Your task to perform on an android device: change keyboard looks Image 0: 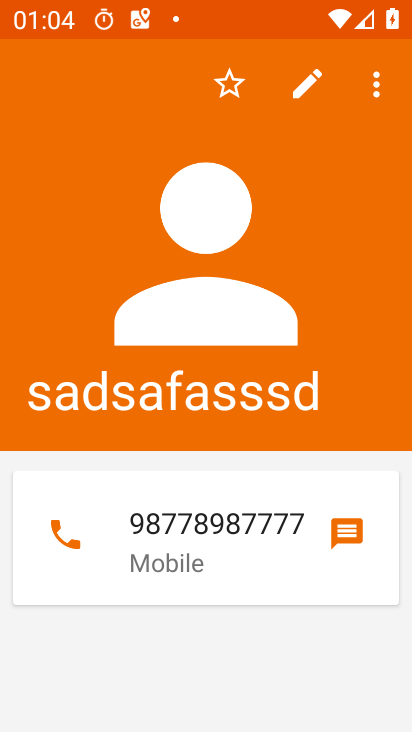
Step 0: press home button
Your task to perform on an android device: change keyboard looks Image 1: 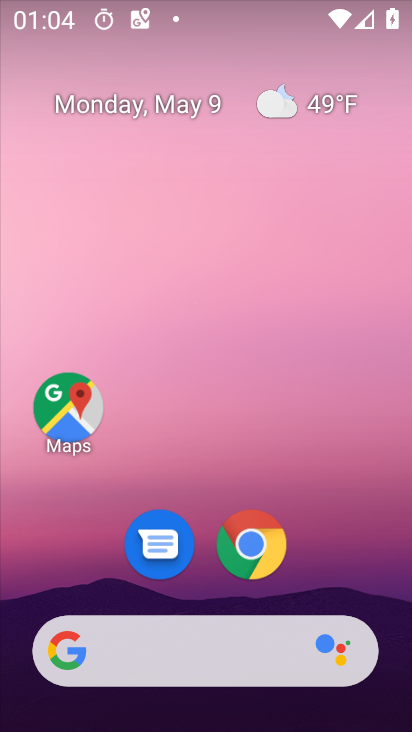
Step 1: drag from (303, 627) to (228, 0)
Your task to perform on an android device: change keyboard looks Image 2: 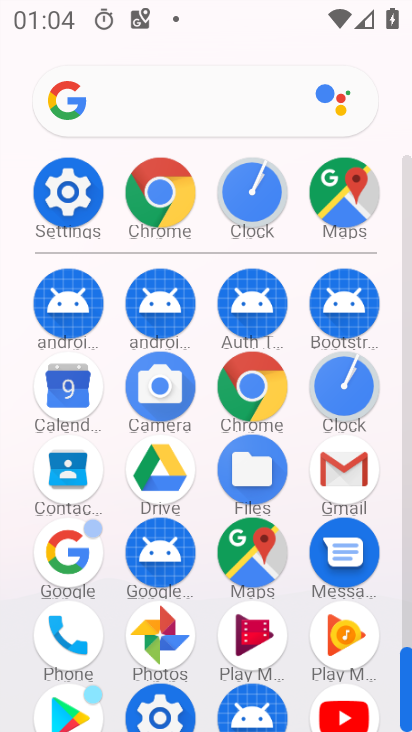
Step 2: click (70, 215)
Your task to perform on an android device: change keyboard looks Image 3: 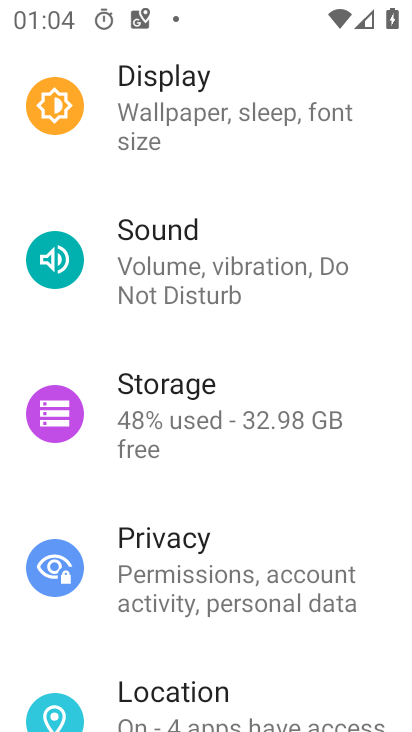
Step 3: drag from (283, 321) to (410, 624)
Your task to perform on an android device: change keyboard looks Image 4: 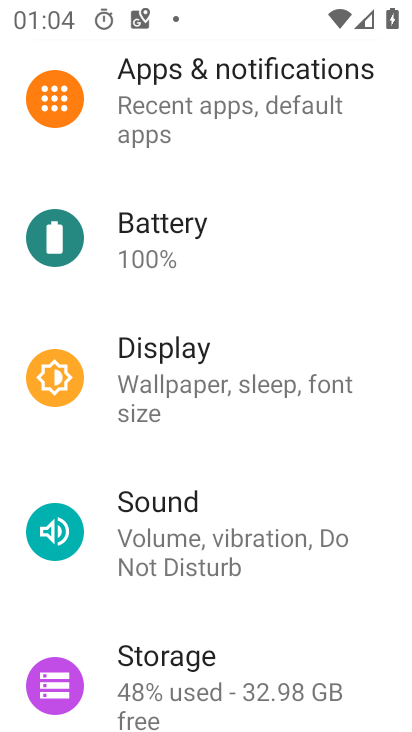
Step 4: drag from (310, 323) to (347, 597)
Your task to perform on an android device: change keyboard looks Image 5: 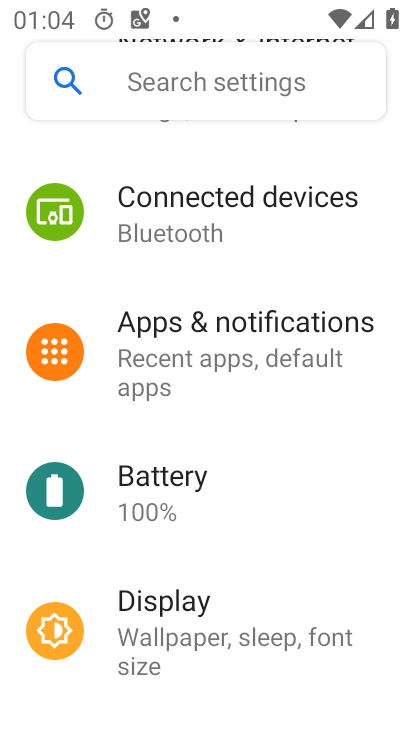
Step 5: drag from (315, 657) to (336, 1)
Your task to perform on an android device: change keyboard looks Image 6: 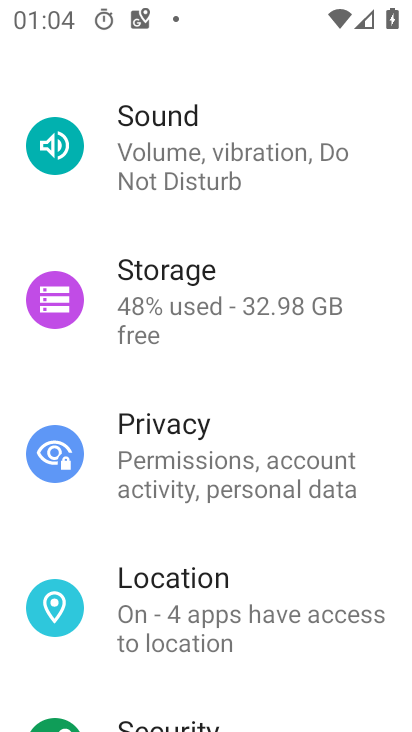
Step 6: drag from (314, 613) to (354, 2)
Your task to perform on an android device: change keyboard looks Image 7: 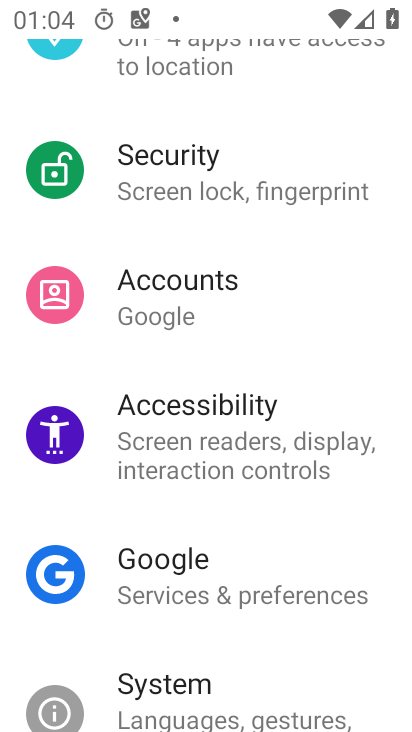
Step 7: drag from (269, 658) to (284, 173)
Your task to perform on an android device: change keyboard looks Image 8: 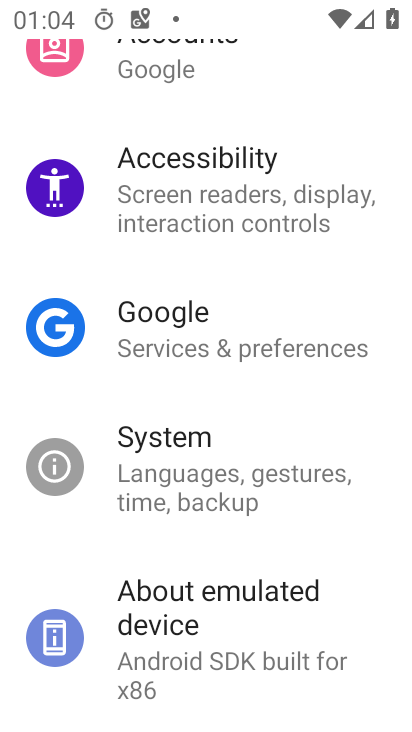
Step 8: click (278, 512)
Your task to perform on an android device: change keyboard looks Image 9: 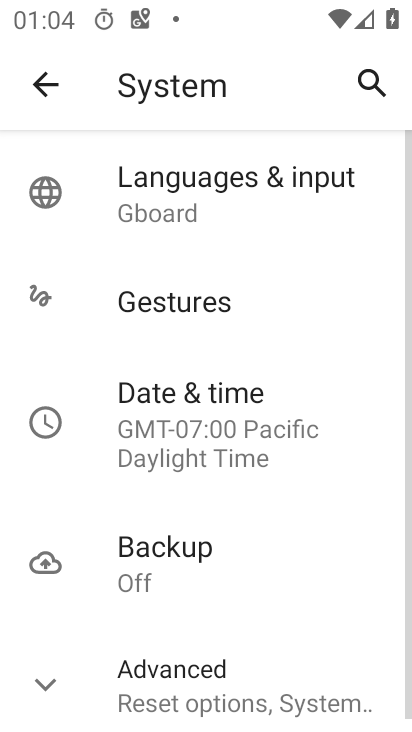
Step 9: click (235, 194)
Your task to perform on an android device: change keyboard looks Image 10: 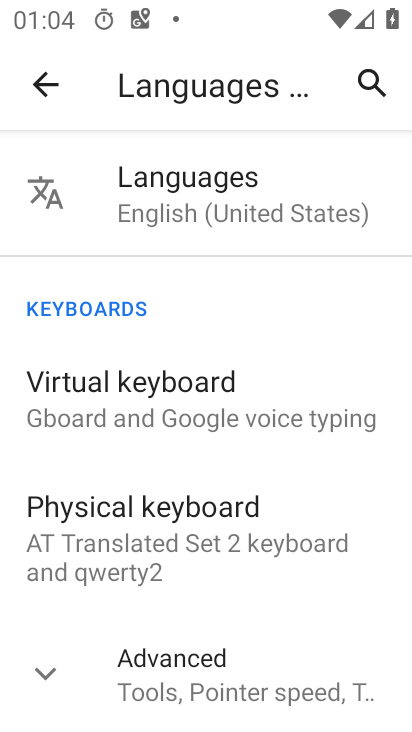
Step 10: click (259, 409)
Your task to perform on an android device: change keyboard looks Image 11: 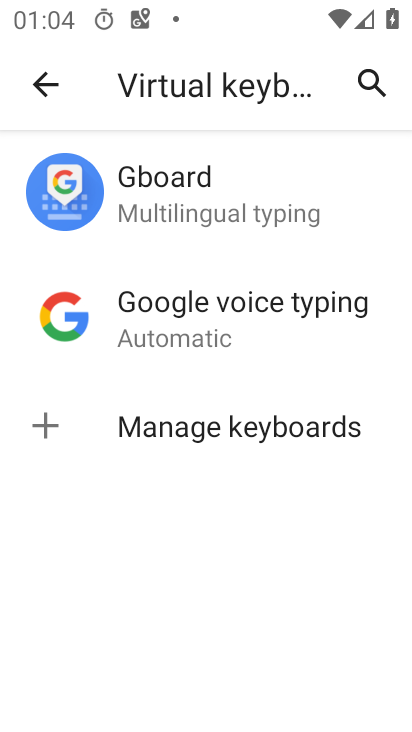
Step 11: click (249, 224)
Your task to perform on an android device: change keyboard looks Image 12: 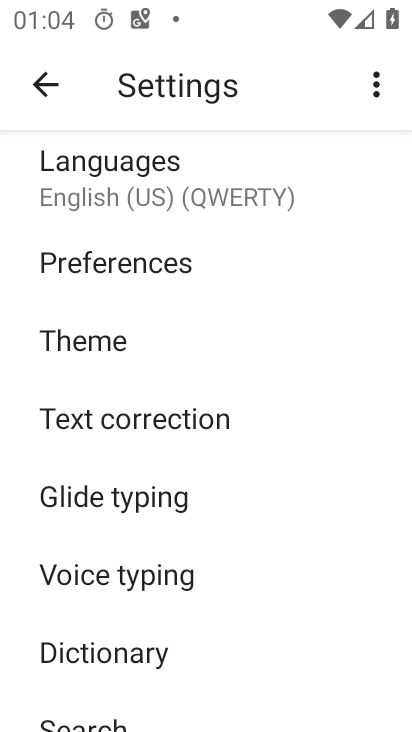
Step 12: click (118, 340)
Your task to perform on an android device: change keyboard looks Image 13: 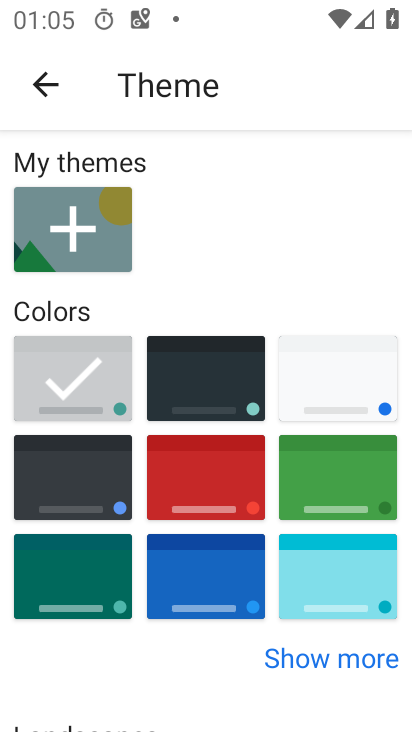
Step 13: click (225, 388)
Your task to perform on an android device: change keyboard looks Image 14: 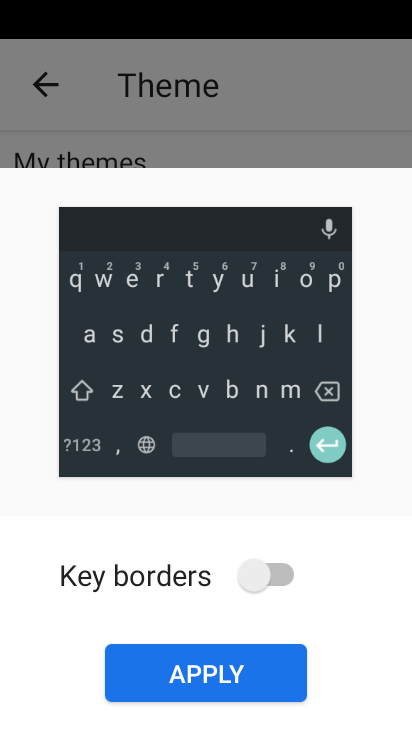
Step 14: click (202, 673)
Your task to perform on an android device: change keyboard looks Image 15: 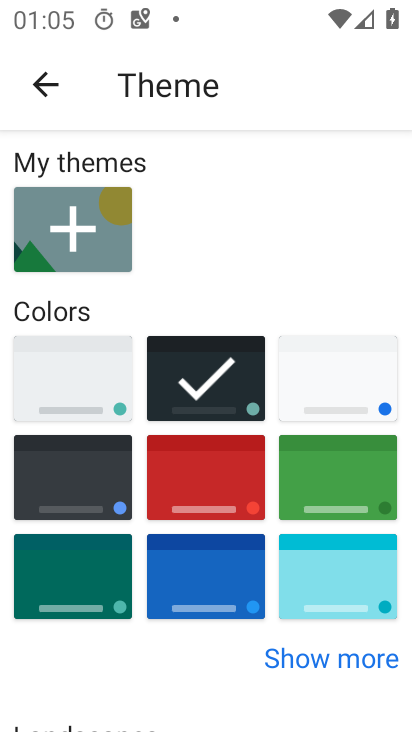
Step 15: click (197, 376)
Your task to perform on an android device: change keyboard looks Image 16: 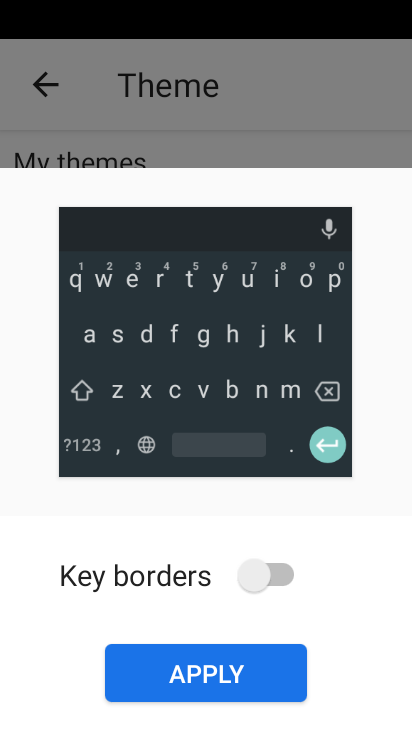
Step 16: click (192, 679)
Your task to perform on an android device: change keyboard looks Image 17: 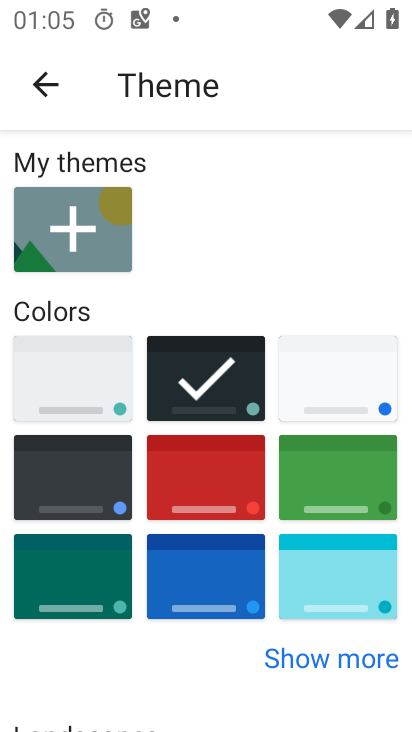
Step 17: task complete